Your task to perform on an android device: Open sound settings Image 0: 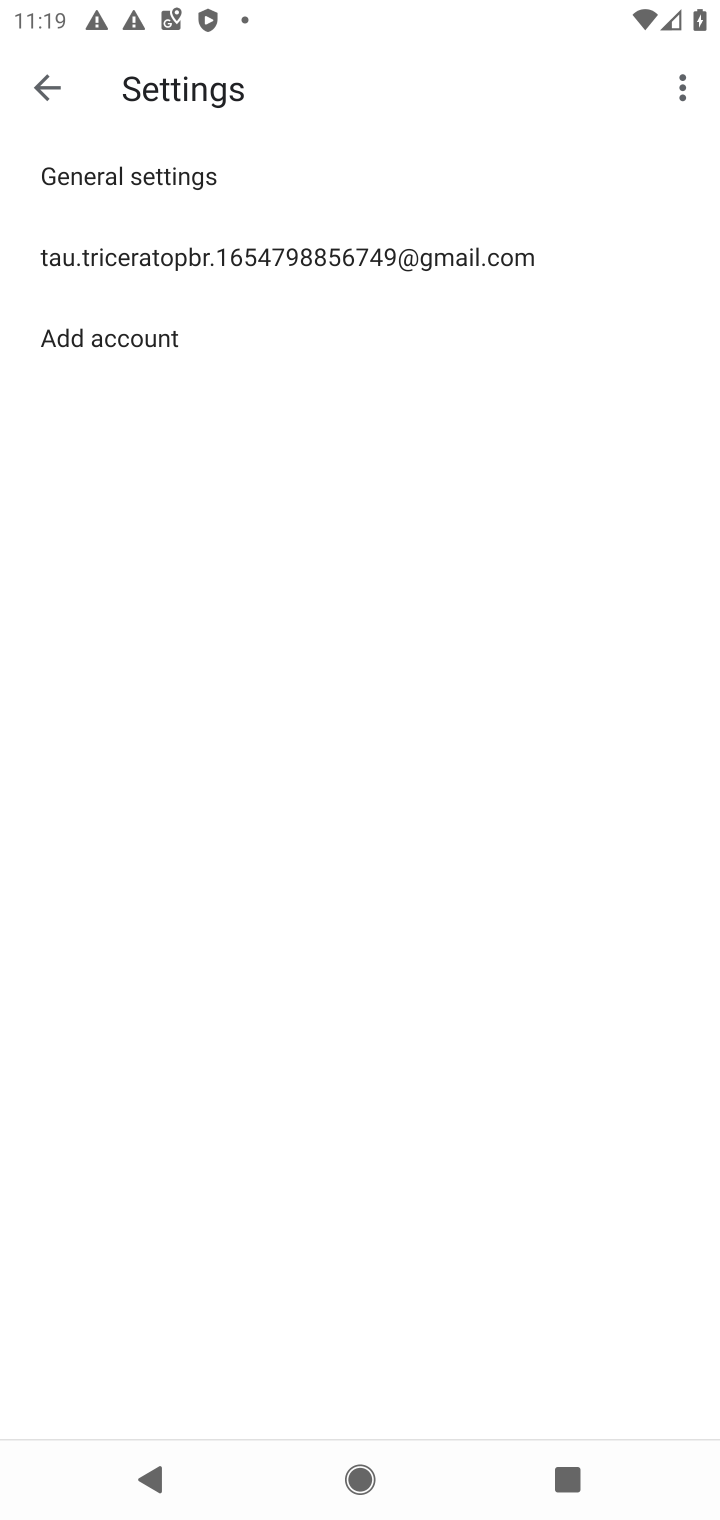
Step 0: press home button
Your task to perform on an android device: Open sound settings Image 1: 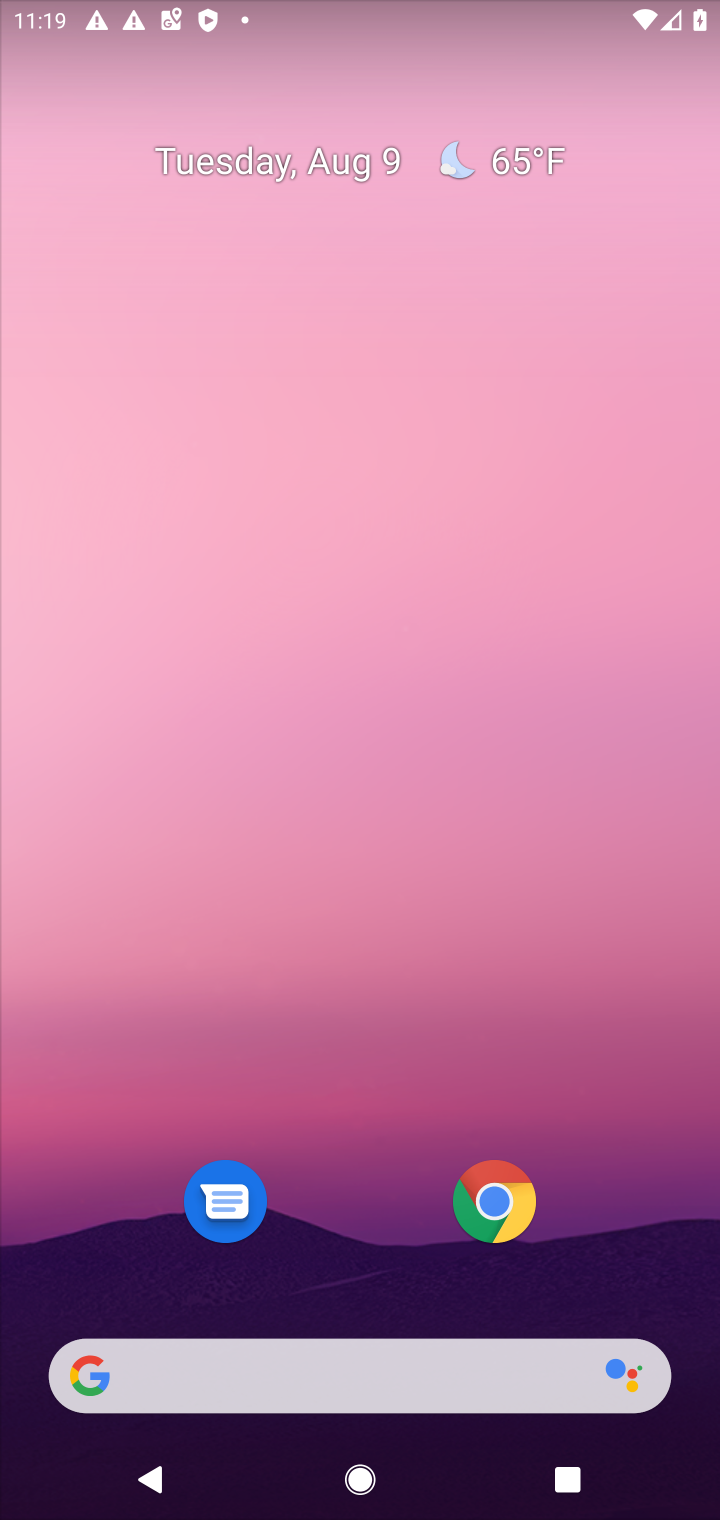
Step 1: drag from (376, 1230) to (449, 415)
Your task to perform on an android device: Open sound settings Image 2: 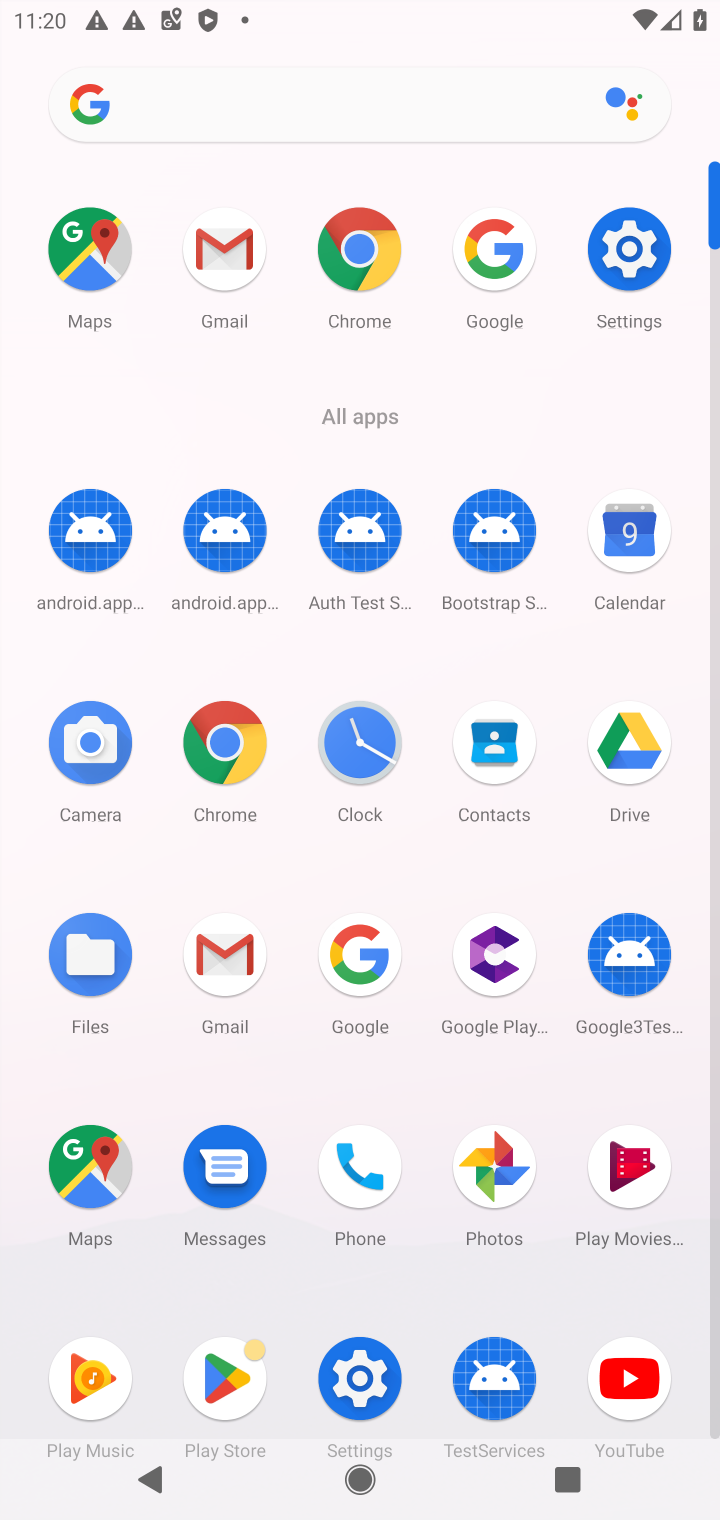
Step 2: click (617, 250)
Your task to perform on an android device: Open sound settings Image 3: 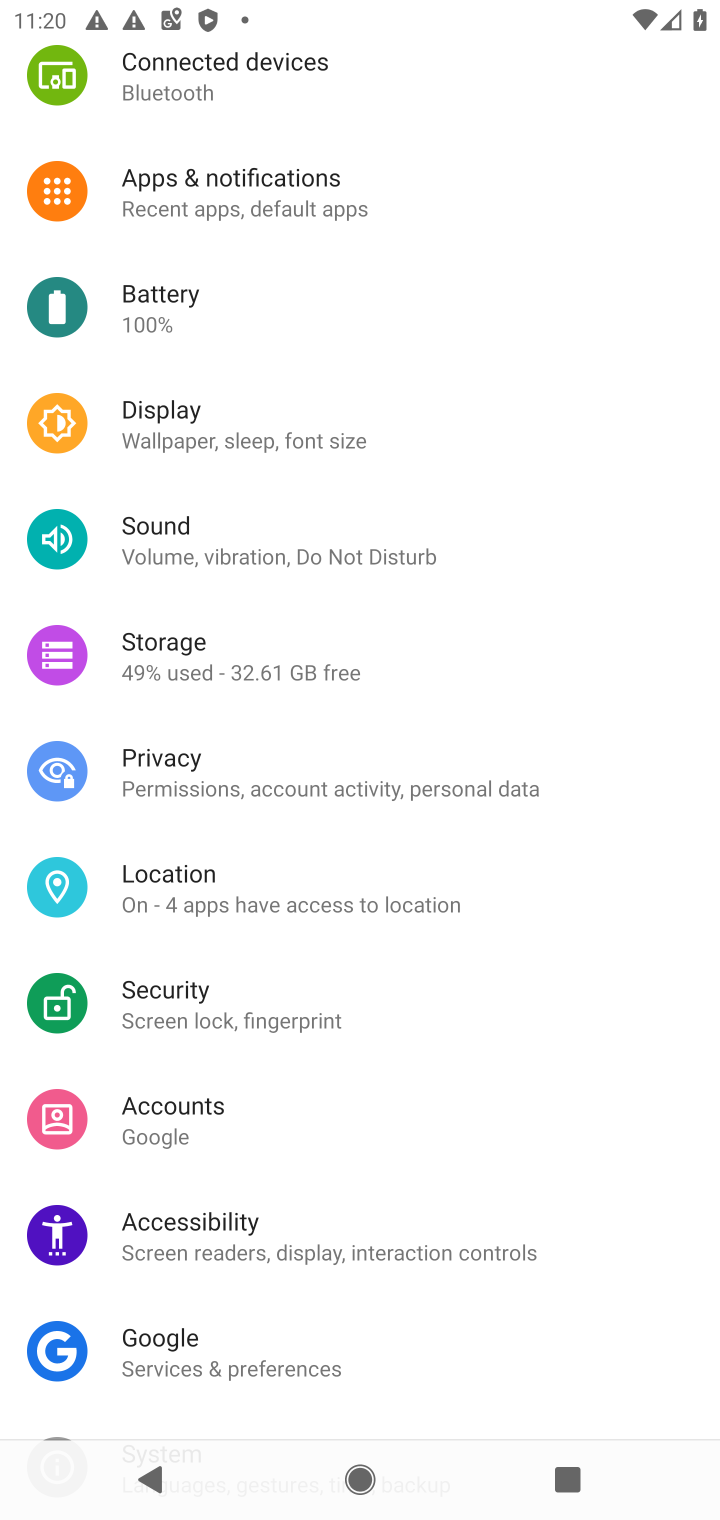
Step 3: click (197, 560)
Your task to perform on an android device: Open sound settings Image 4: 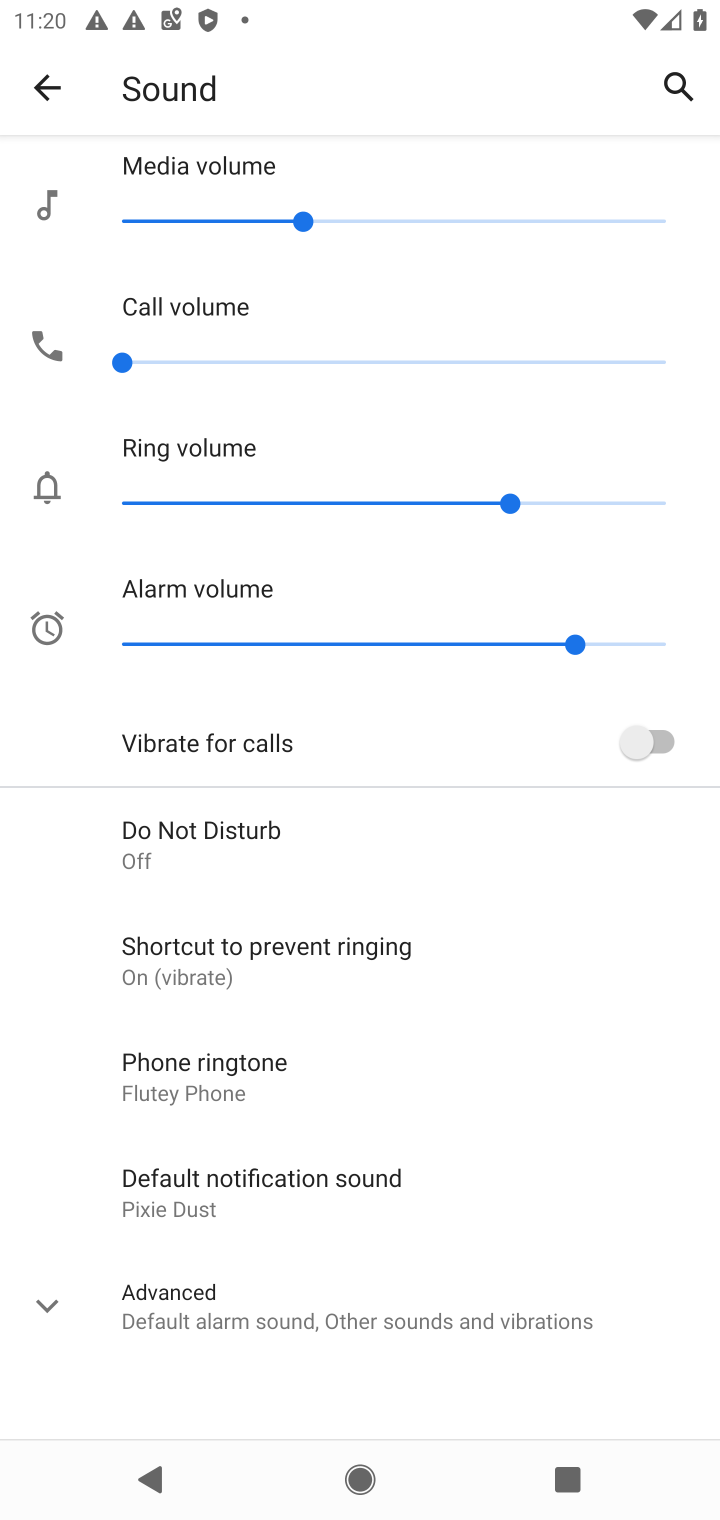
Step 4: task complete